Your task to perform on an android device: Go to Google maps Image 0: 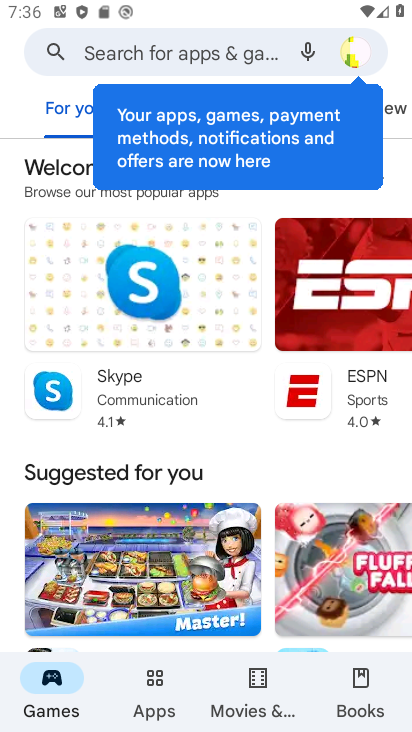
Step 0: press back button
Your task to perform on an android device: Go to Google maps Image 1: 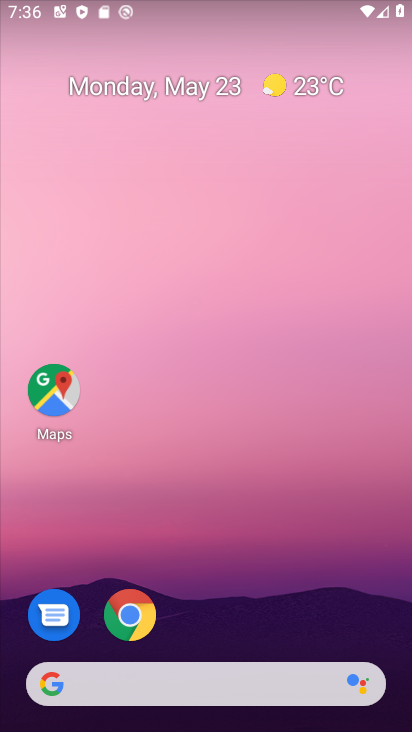
Step 1: click (51, 392)
Your task to perform on an android device: Go to Google maps Image 2: 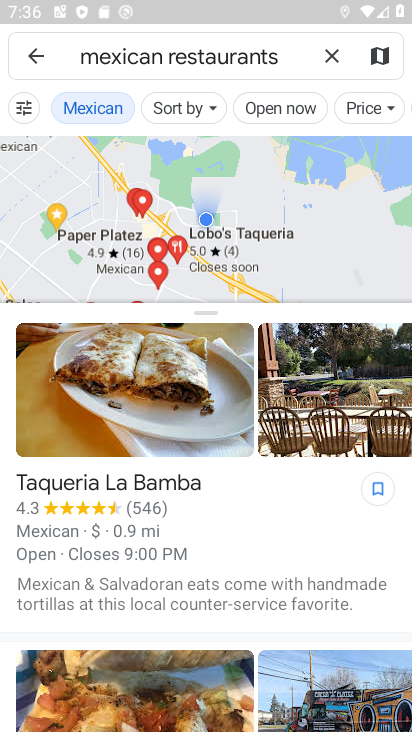
Step 2: click (331, 57)
Your task to perform on an android device: Go to Google maps Image 3: 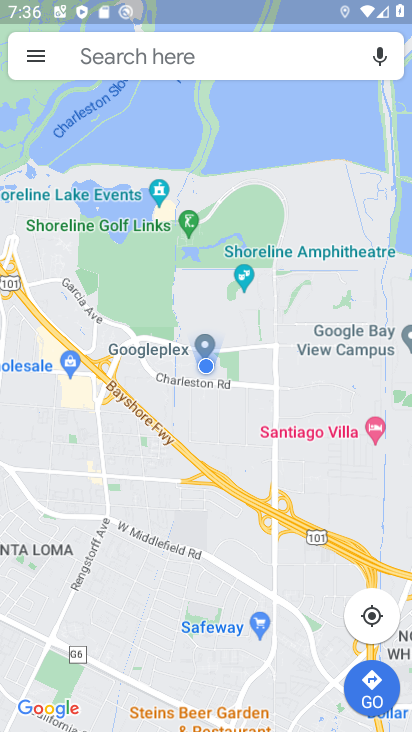
Step 3: task complete